Your task to perform on an android device: open chrome privacy settings Image 0: 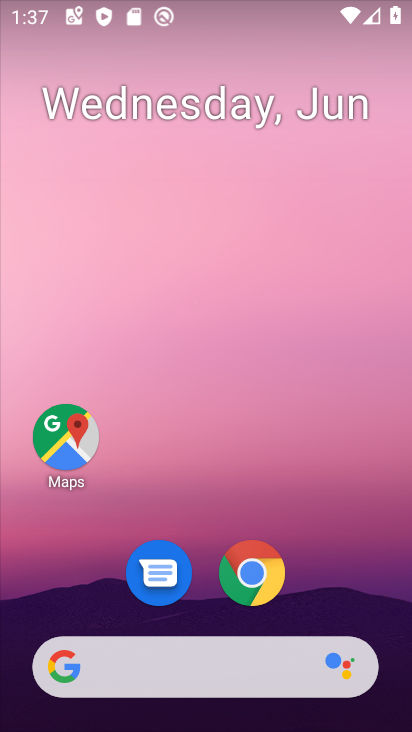
Step 0: drag from (338, 569) to (341, 212)
Your task to perform on an android device: open chrome privacy settings Image 1: 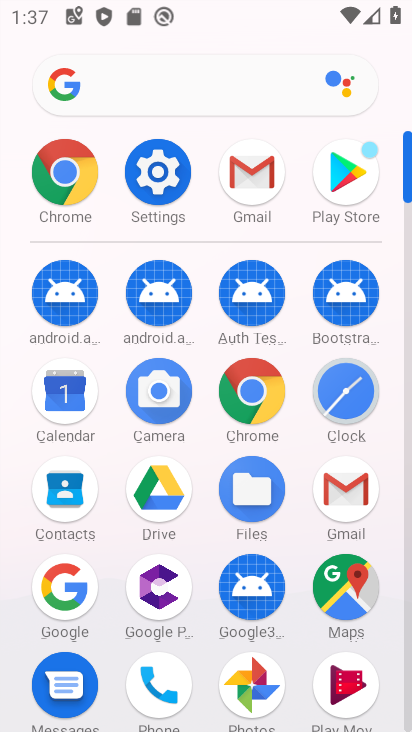
Step 1: click (247, 416)
Your task to perform on an android device: open chrome privacy settings Image 2: 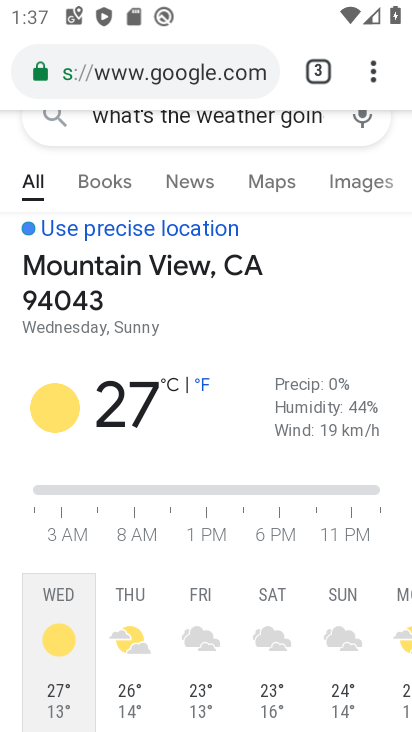
Step 2: drag from (383, 85) to (154, 583)
Your task to perform on an android device: open chrome privacy settings Image 3: 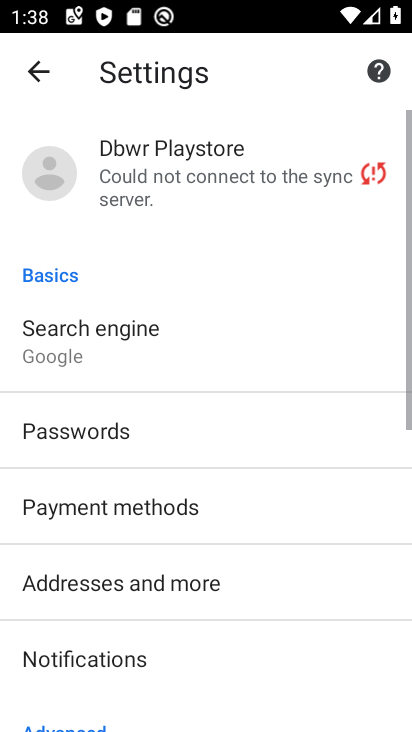
Step 3: drag from (189, 657) to (282, 357)
Your task to perform on an android device: open chrome privacy settings Image 4: 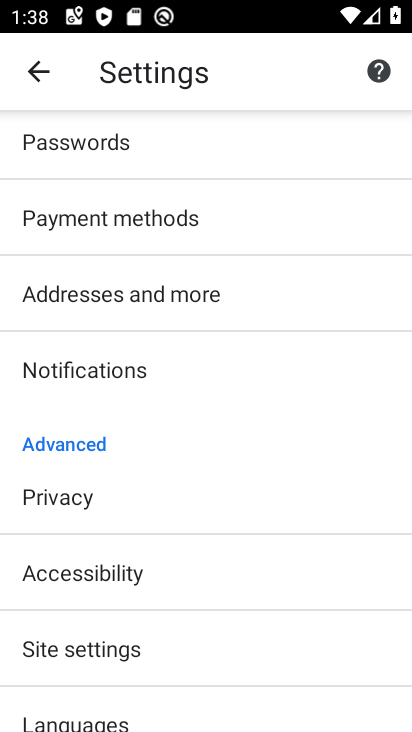
Step 4: click (67, 512)
Your task to perform on an android device: open chrome privacy settings Image 5: 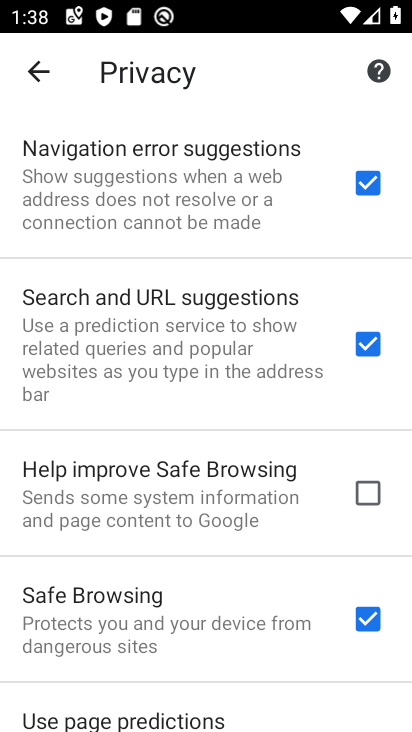
Step 5: task complete